Your task to perform on an android device: View the shopping cart on amazon.com. Add jbl flip 4 to the cart on amazon.com Image 0: 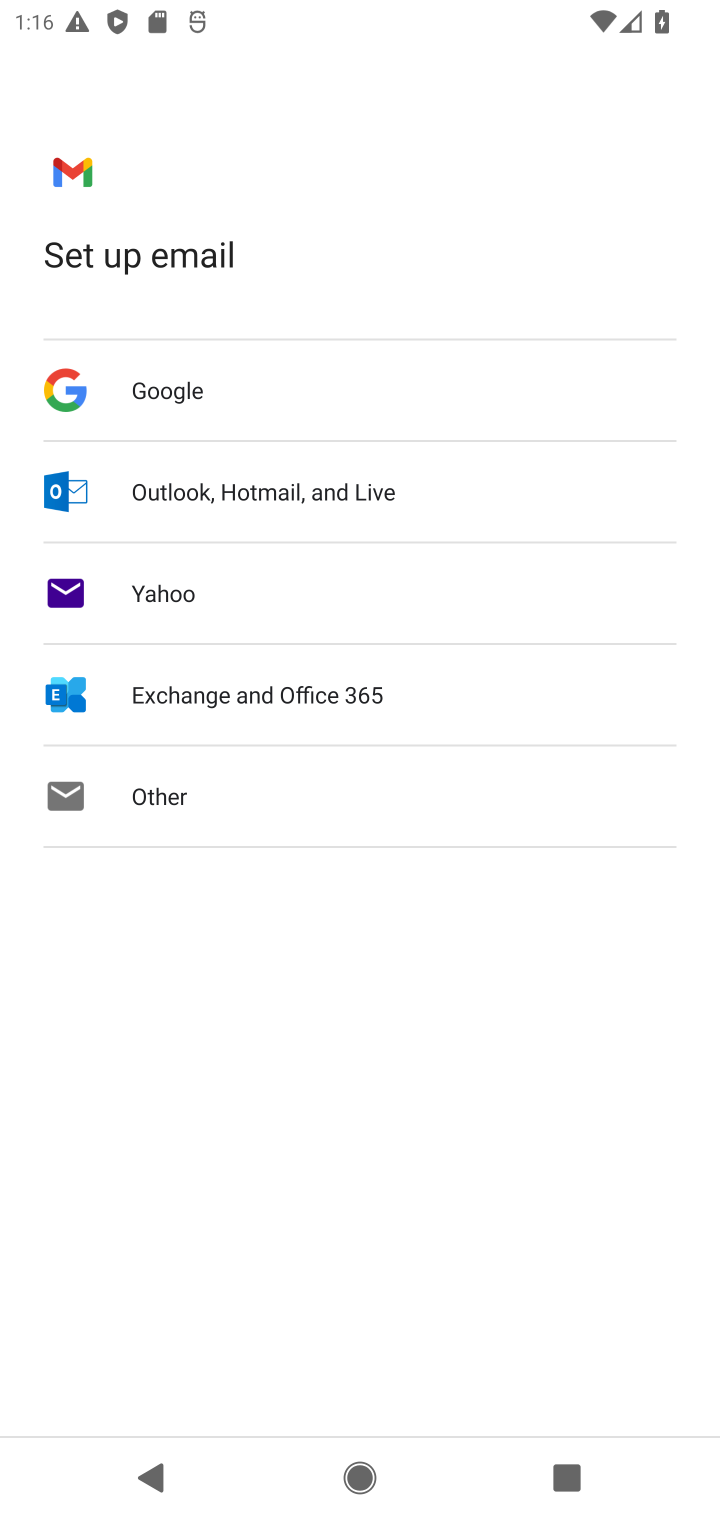
Step 0: press home button
Your task to perform on an android device: View the shopping cart on amazon.com. Add jbl flip 4 to the cart on amazon.com Image 1: 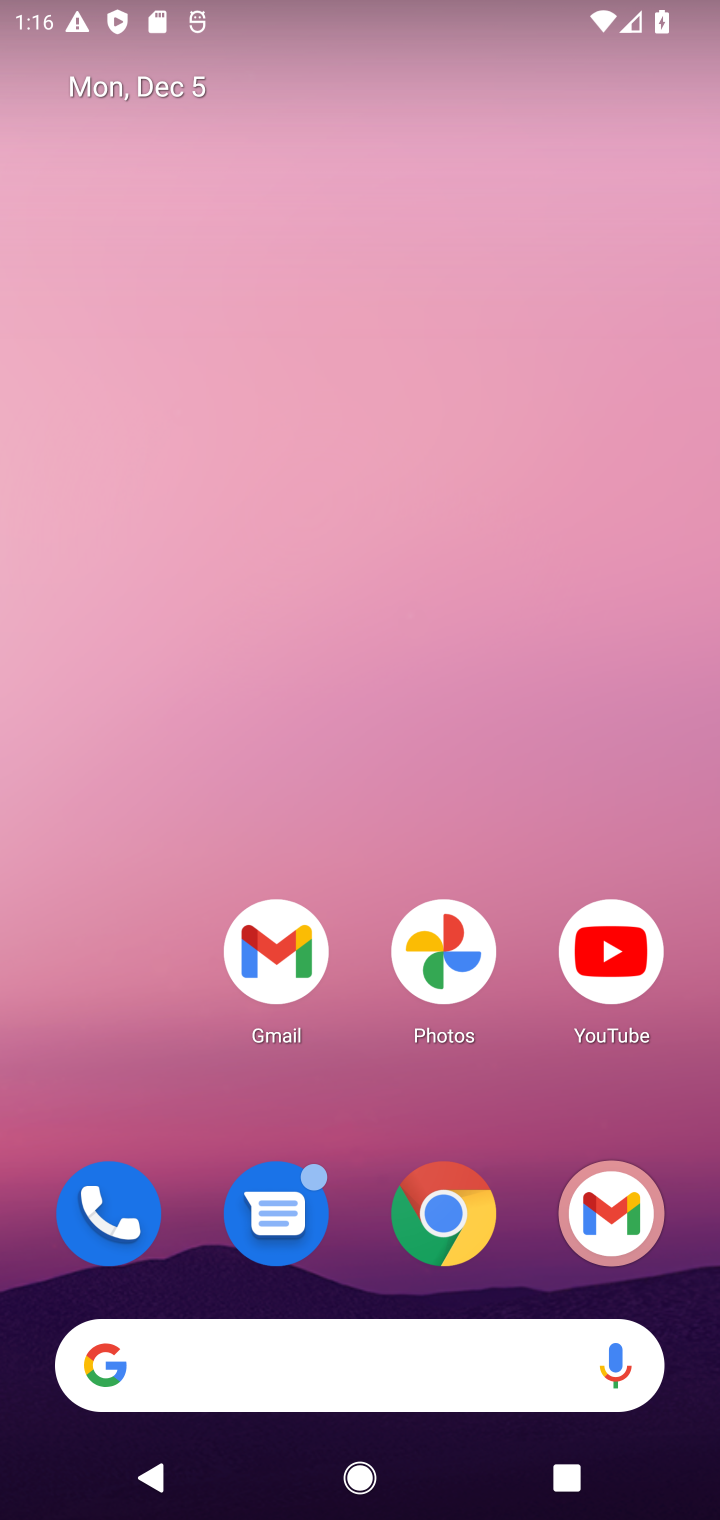
Step 1: click (445, 1224)
Your task to perform on an android device: View the shopping cart on amazon.com. Add jbl flip 4 to the cart on amazon.com Image 2: 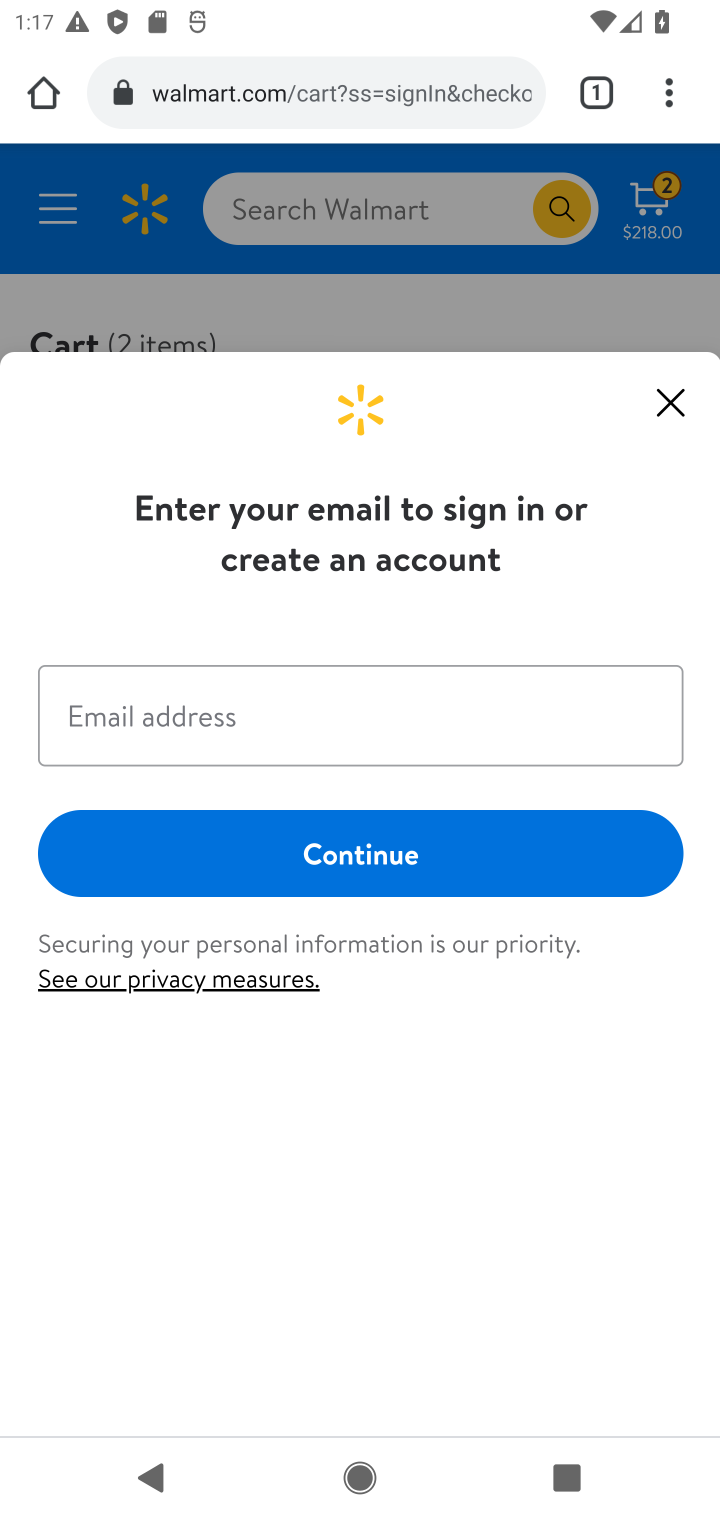
Step 2: click (297, 104)
Your task to perform on an android device: View the shopping cart on amazon.com. Add jbl flip 4 to the cart on amazon.com Image 3: 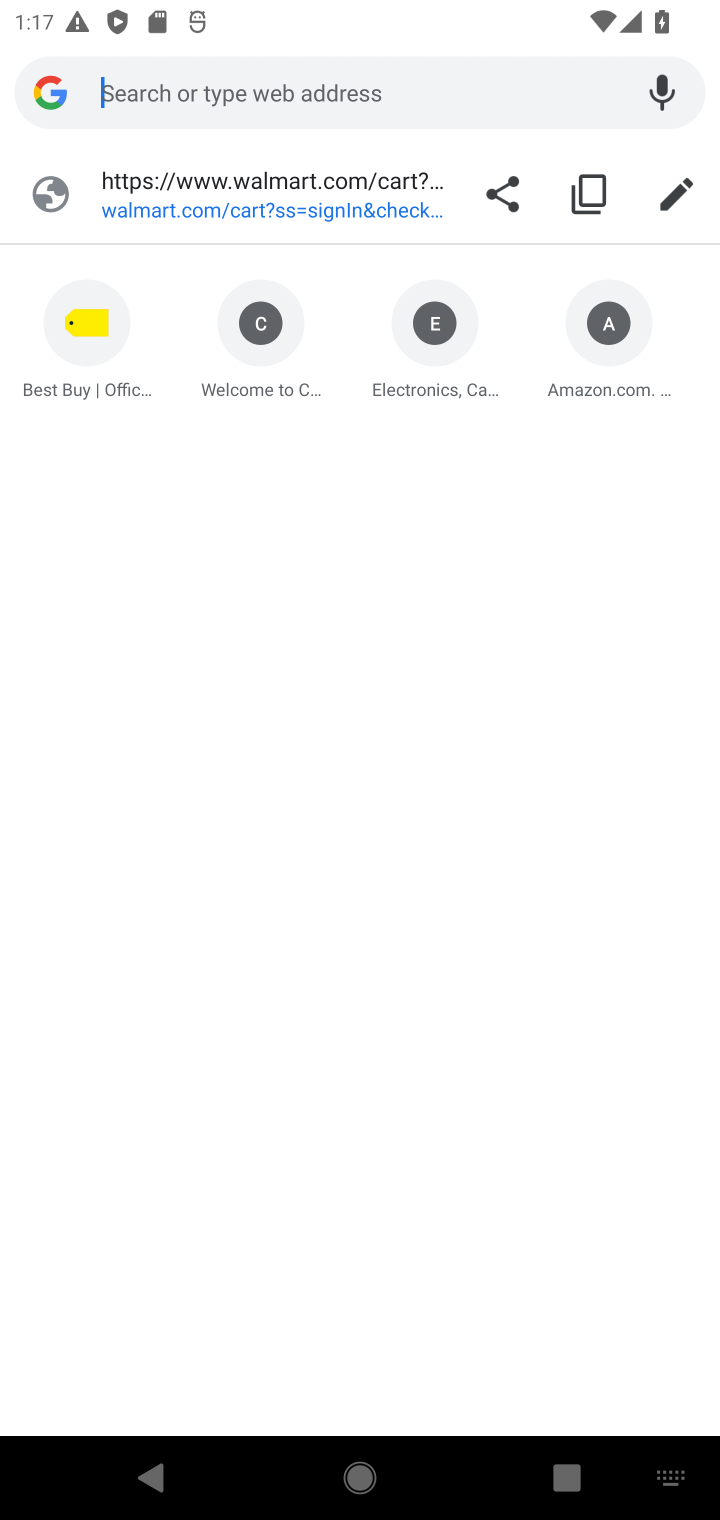
Step 3: click (613, 347)
Your task to perform on an android device: View the shopping cart on amazon.com. Add jbl flip 4 to the cart on amazon.com Image 4: 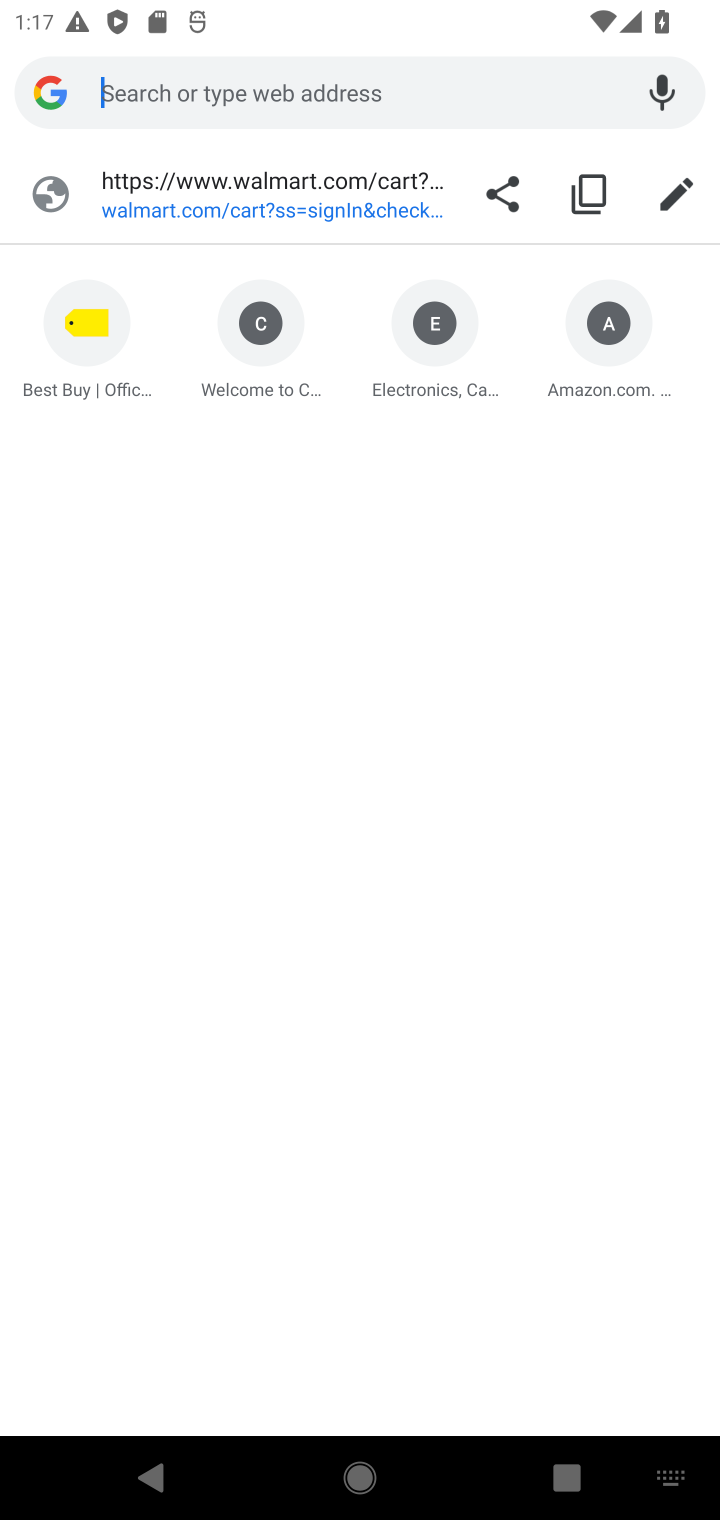
Step 4: click (613, 347)
Your task to perform on an android device: View the shopping cart on amazon.com. Add jbl flip 4 to the cart on amazon.com Image 5: 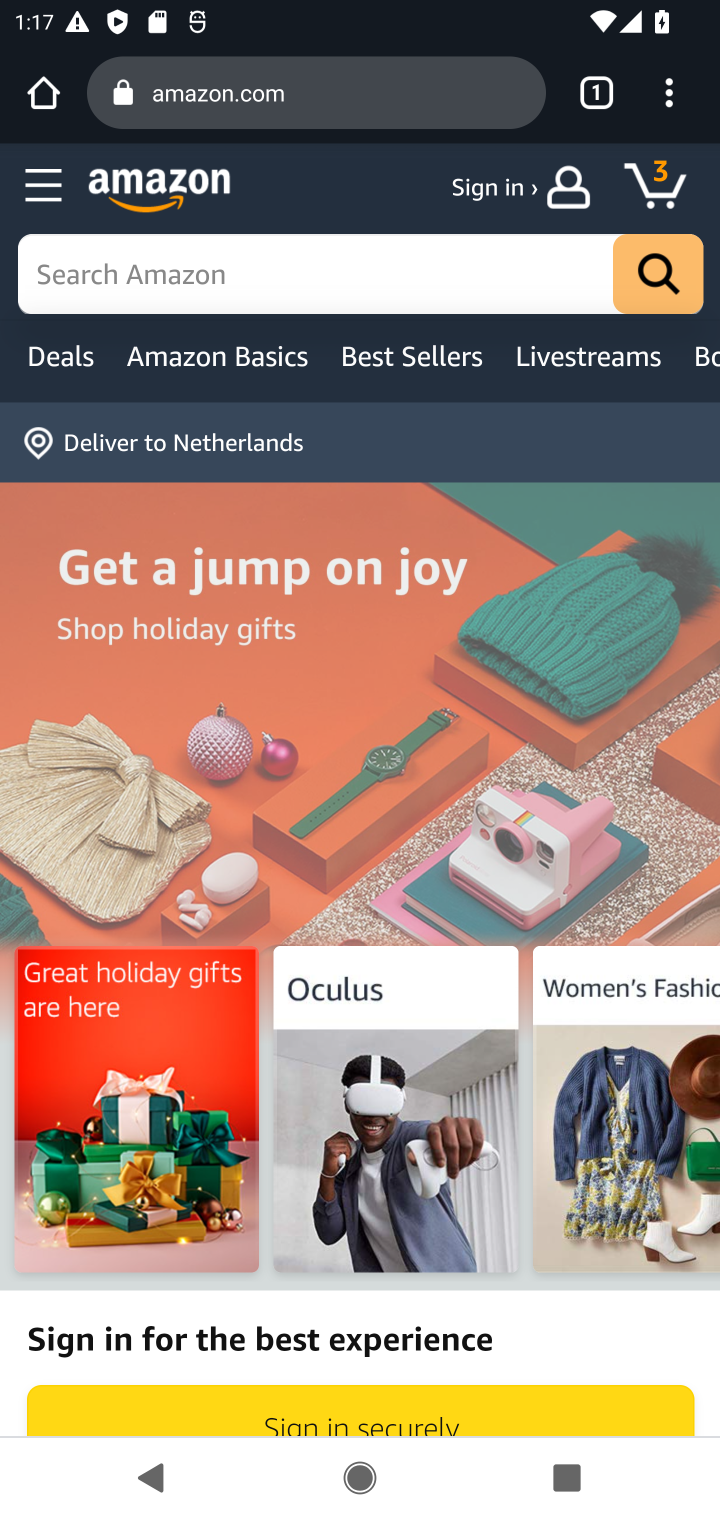
Step 5: click (658, 177)
Your task to perform on an android device: View the shopping cart on amazon.com. Add jbl flip 4 to the cart on amazon.com Image 6: 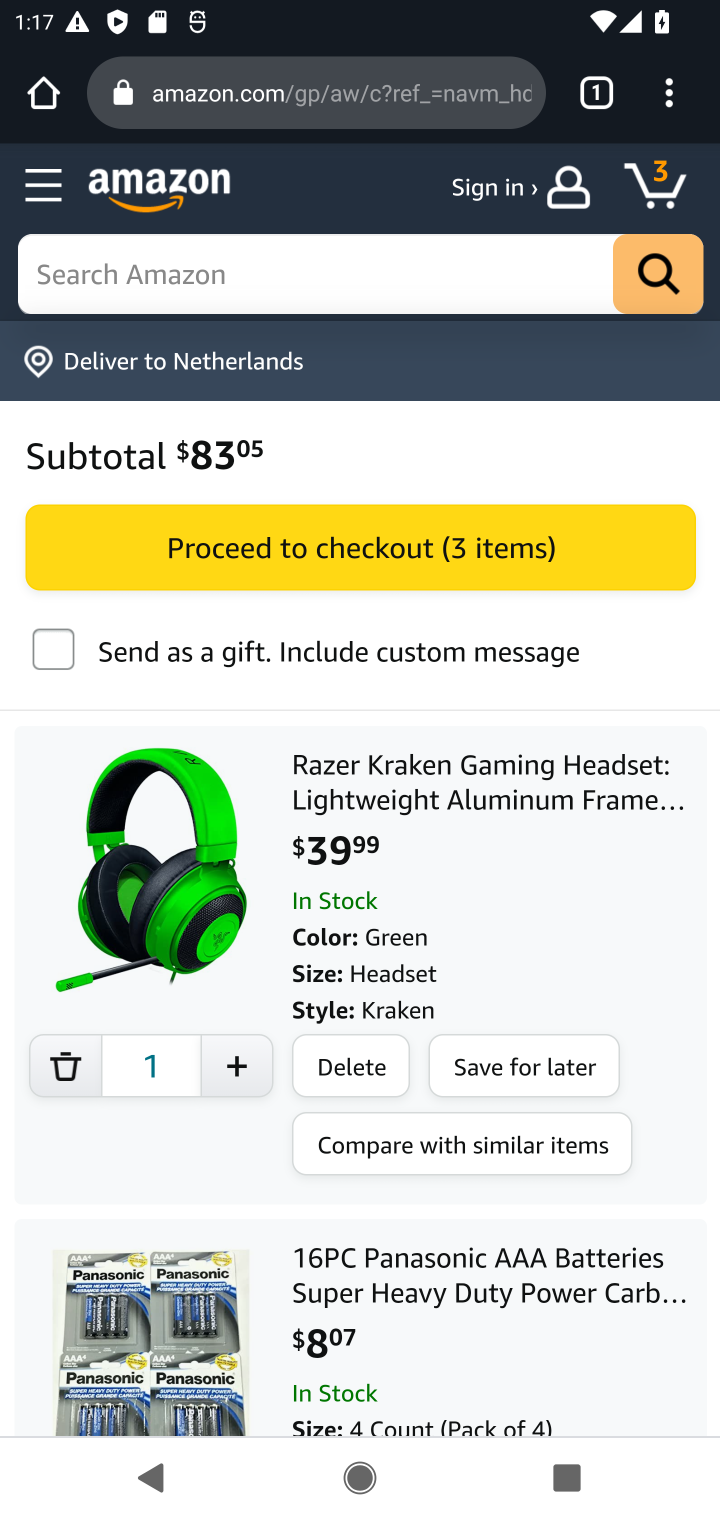
Step 6: click (137, 276)
Your task to perform on an android device: View the shopping cart on amazon.com. Add jbl flip 4 to the cart on amazon.com Image 7: 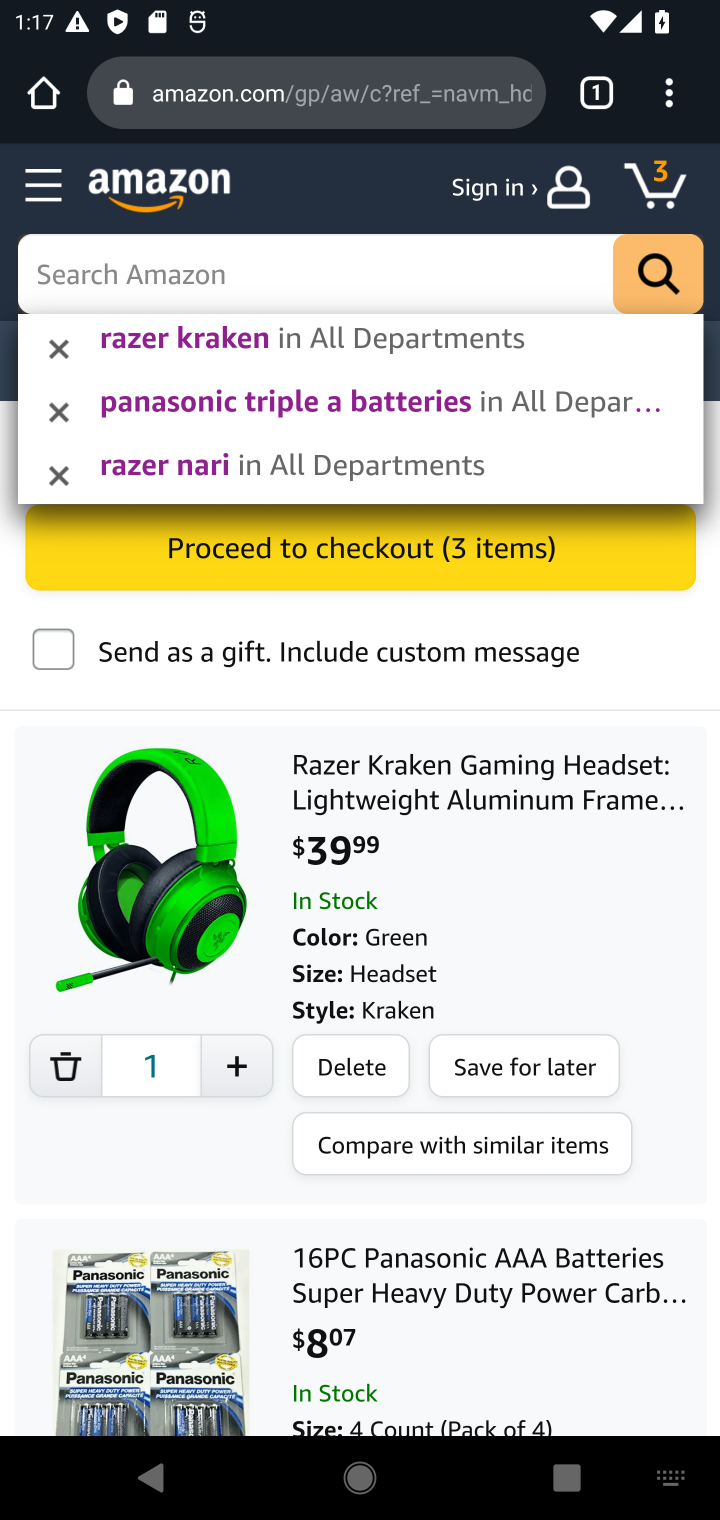
Step 7: type "jbl flip 4"
Your task to perform on an android device: View the shopping cart on amazon.com. Add jbl flip 4 to the cart on amazon.com Image 8: 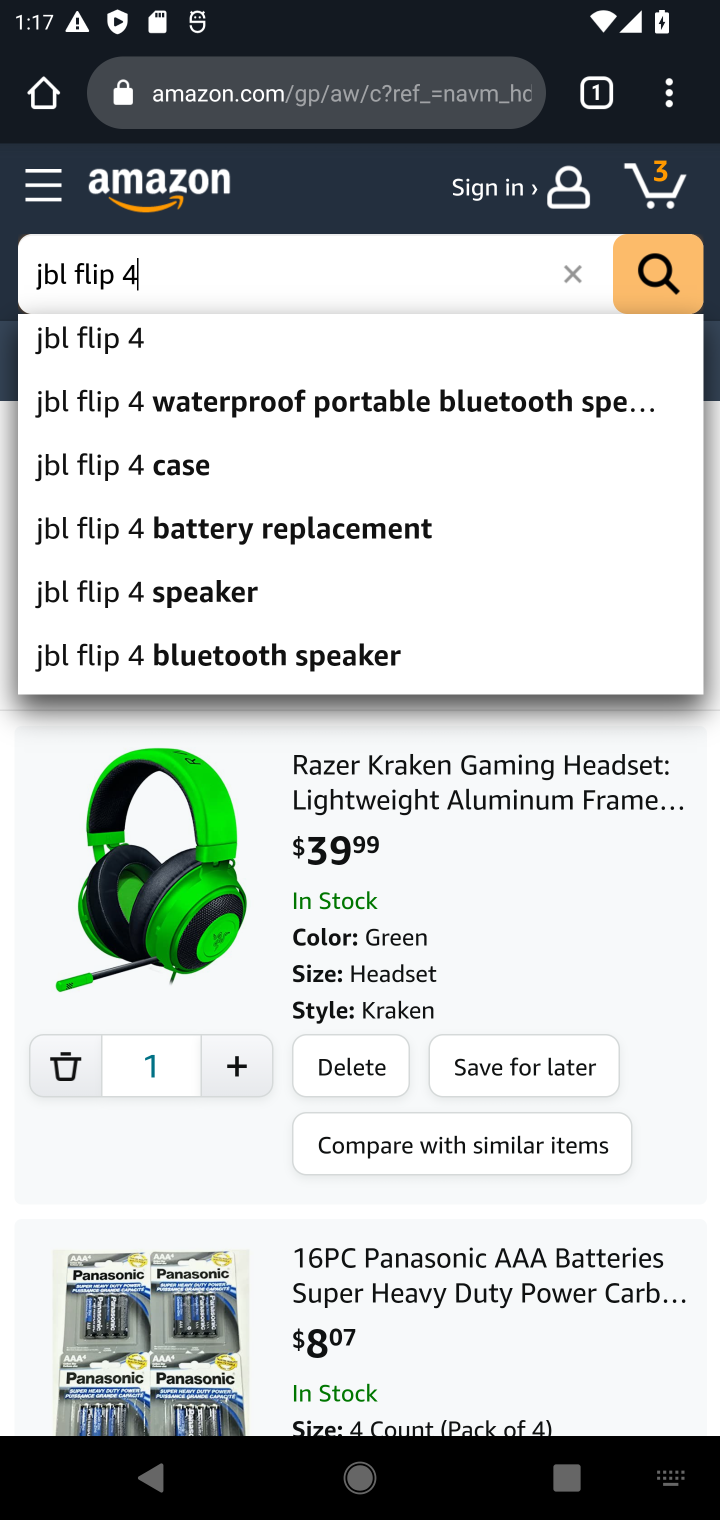
Step 8: click (110, 340)
Your task to perform on an android device: View the shopping cart on amazon.com. Add jbl flip 4 to the cart on amazon.com Image 9: 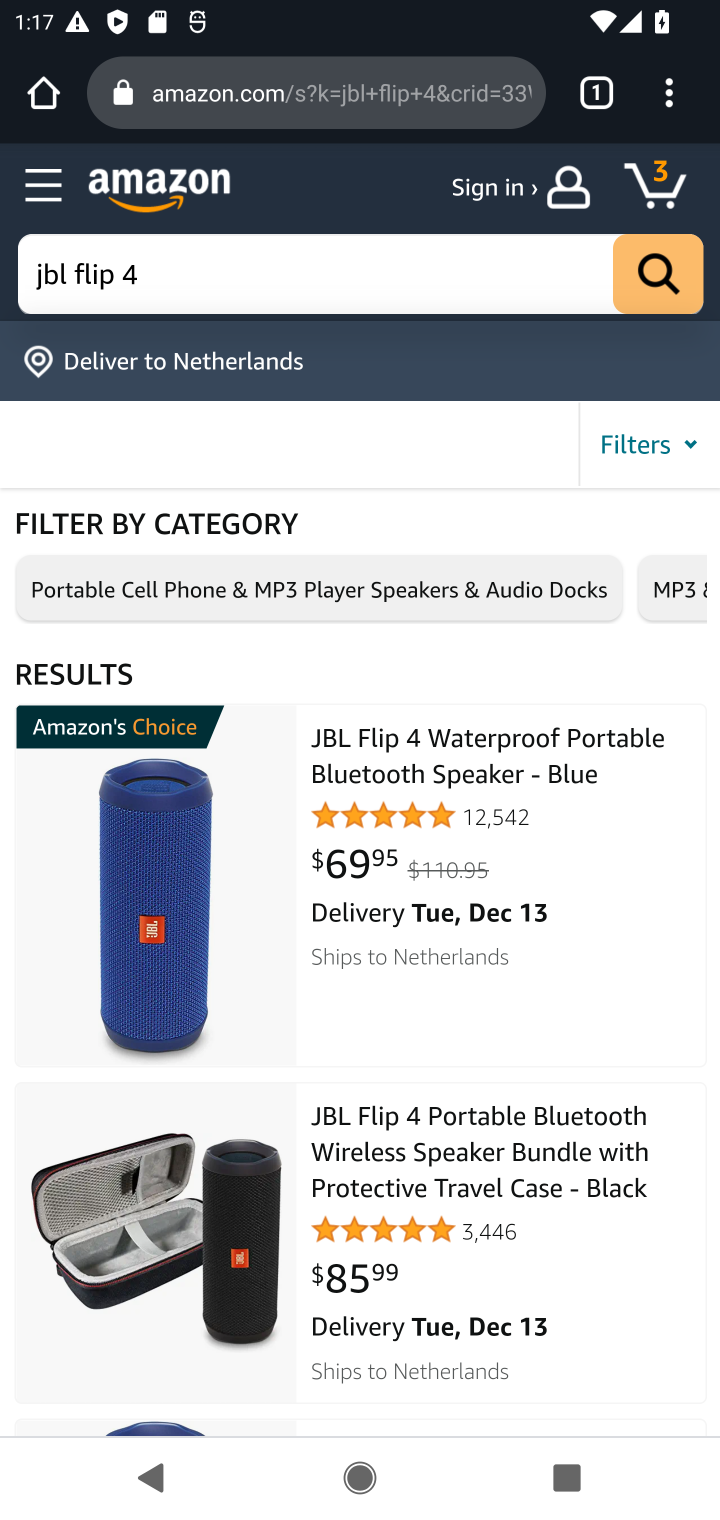
Step 9: click (421, 777)
Your task to perform on an android device: View the shopping cart on amazon.com. Add jbl flip 4 to the cart on amazon.com Image 10: 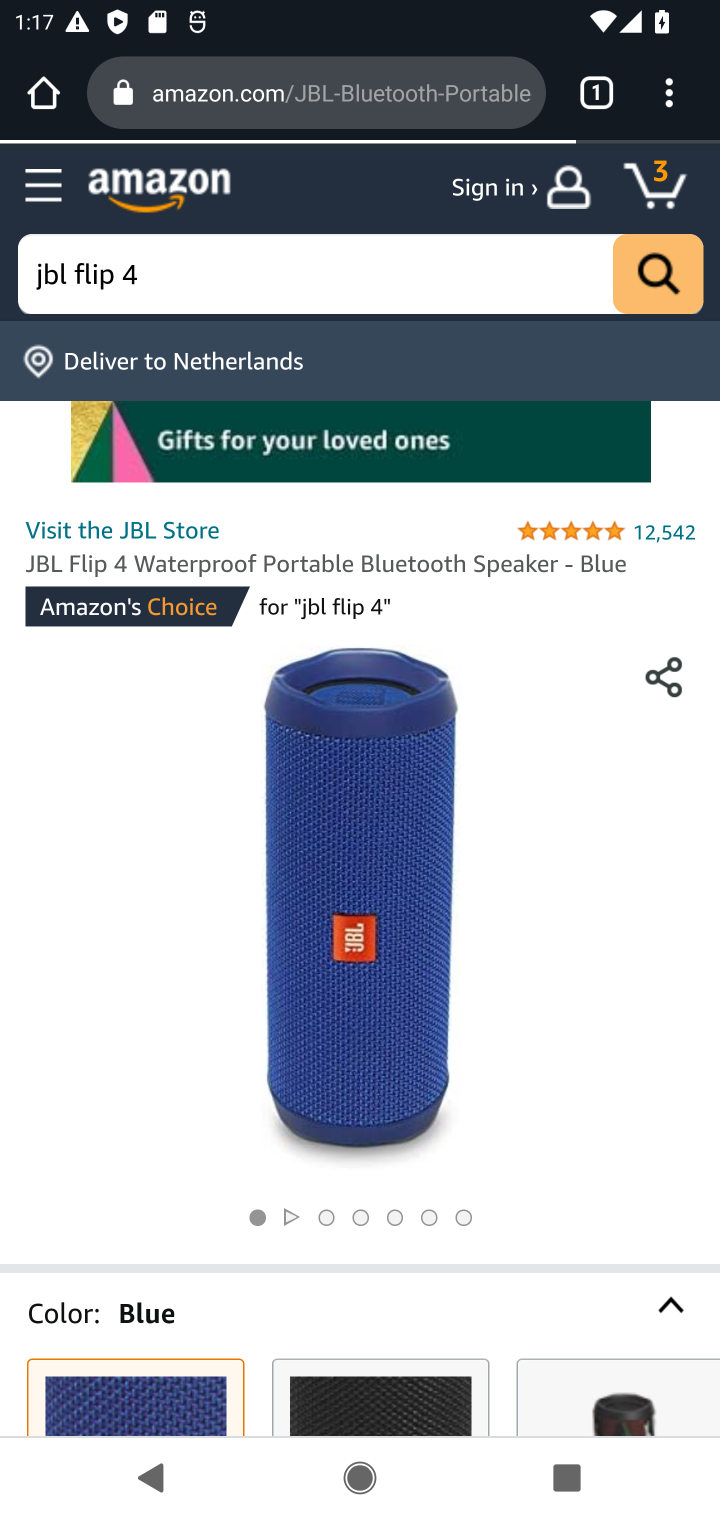
Step 10: drag from (350, 1132) to (396, 418)
Your task to perform on an android device: View the shopping cart on amazon.com. Add jbl flip 4 to the cart on amazon.com Image 11: 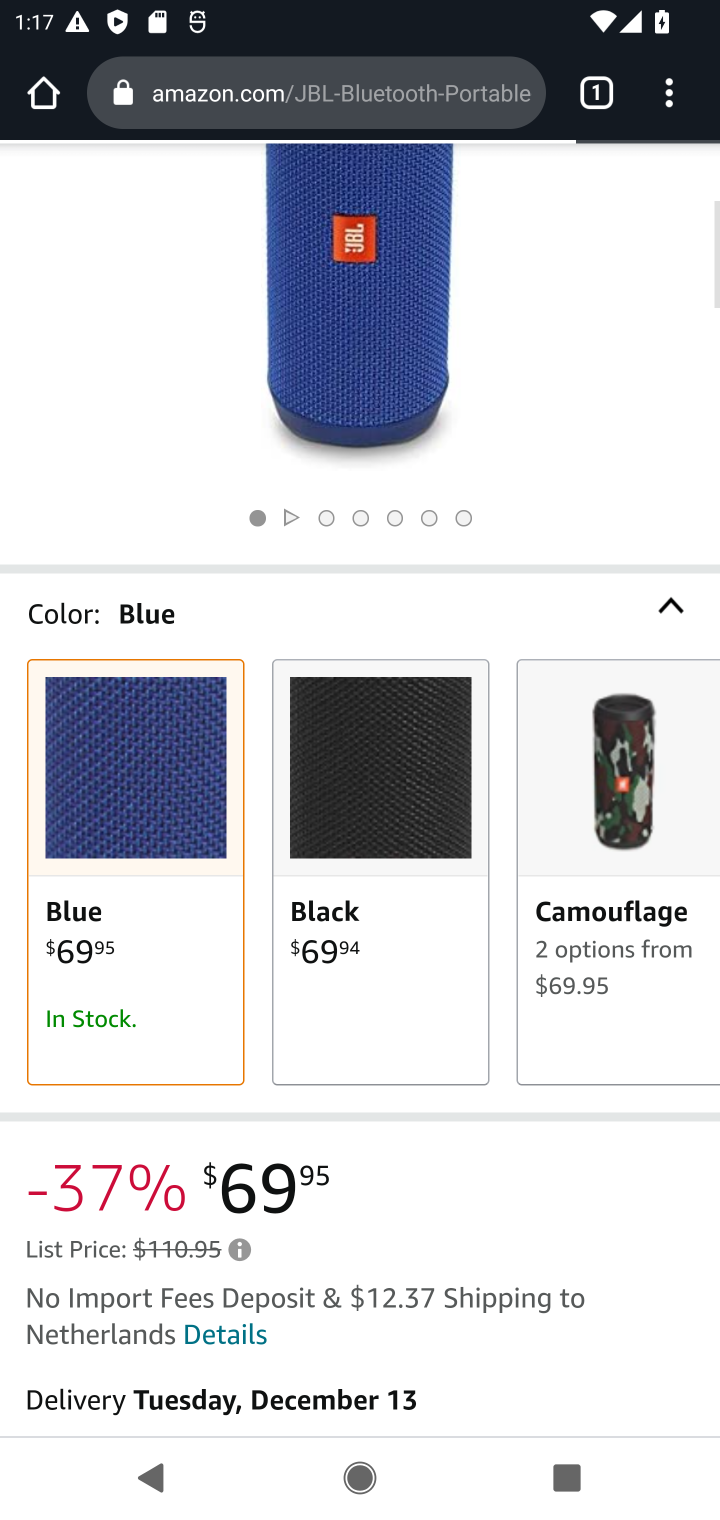
Step 11: drag from (340, 1128) to (345, 566)
Your task to perform on an android device: View the shopping cart on amazon.com. Add jbl flip 4 to the cart on amazon.com Image 12: 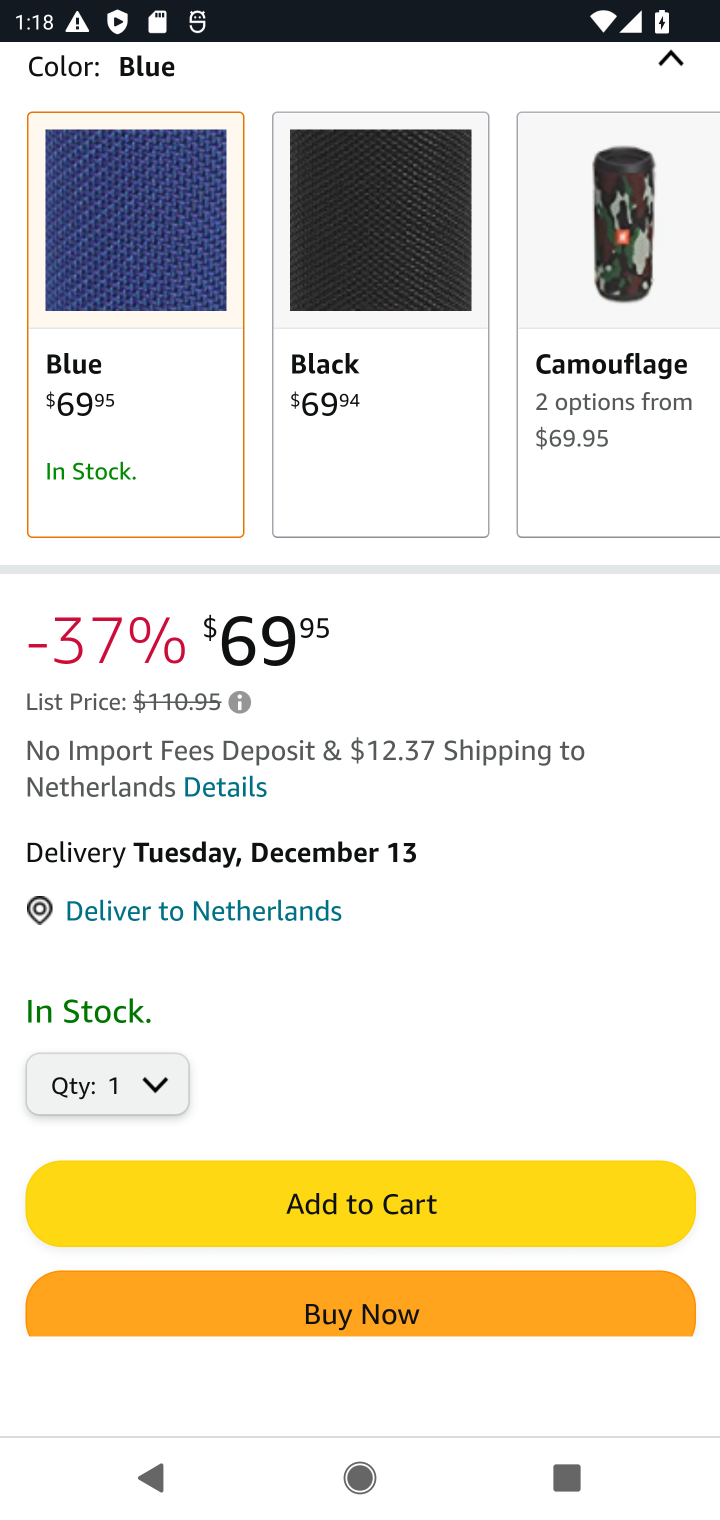
Step 12: click (331, 1201)
Your task to perform on an android device: View the shopping cart on amazon.com. Add jbl flip 4 to the cart on amazon.com Image 13: 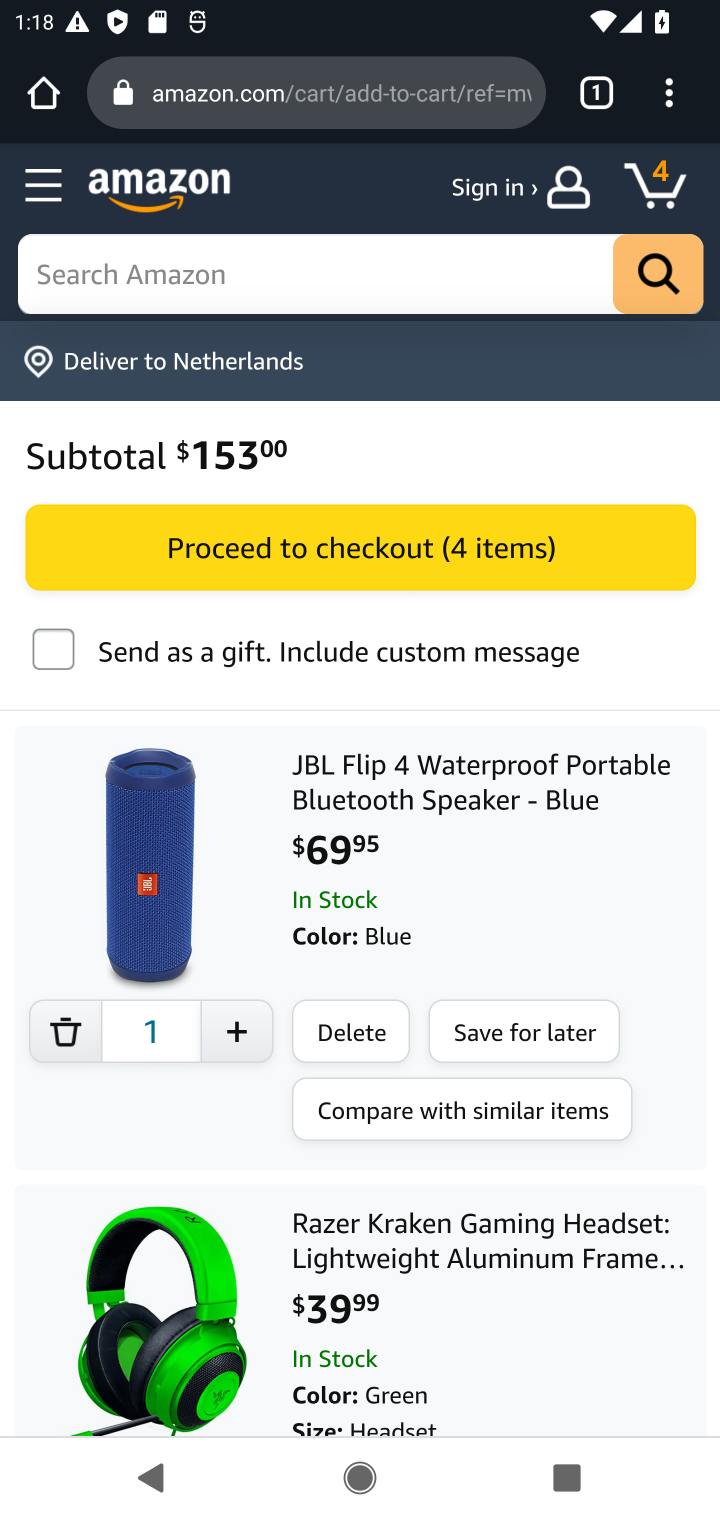
Step 13: task complete